Your task to perform on an android device: Open the calendar and show me this week's events? Image 0: 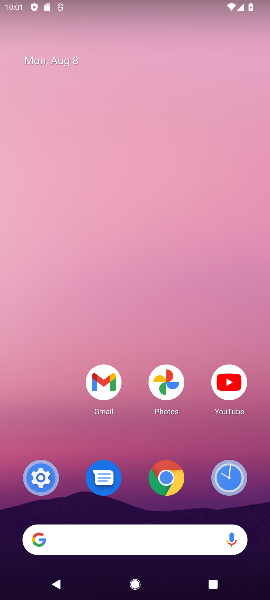
Step 0: drag from (170, 512) to (104, 39)
Your task to perform on an android device: Open the calendar and show me this week's events? Image 1: 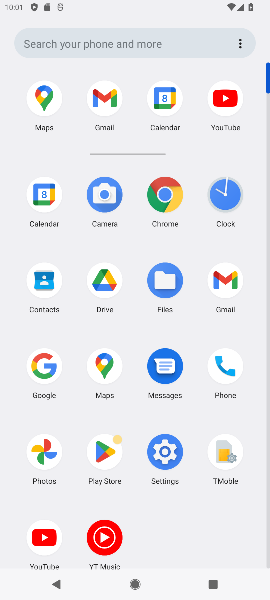
Step 1: click (24, 199)
Your task to perform on an android device: Open the calendar and show me this week's events? Image 2: 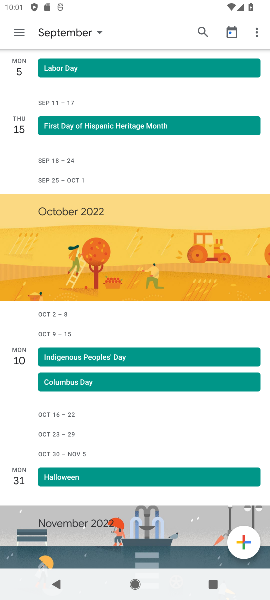
Step 2: click (11, 32)
Your task to perform on an android device: Open the calendar and show me this week's events? Image 3: 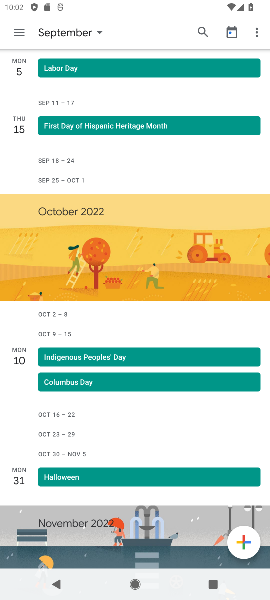
Step 3: click (11, 32)
Your task to perform on an android device: Open the calendar and show me this week's events? Image 4: 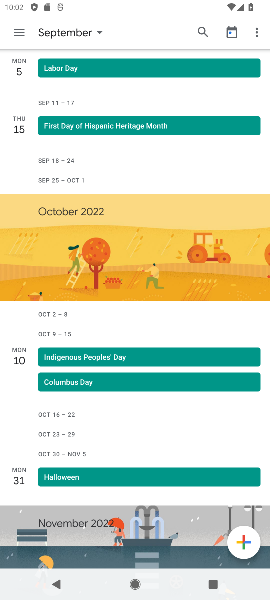
Step 4: click (11, 32)
Your task to perform on an android device: Open the calendar and show me this week's events? Image 5: 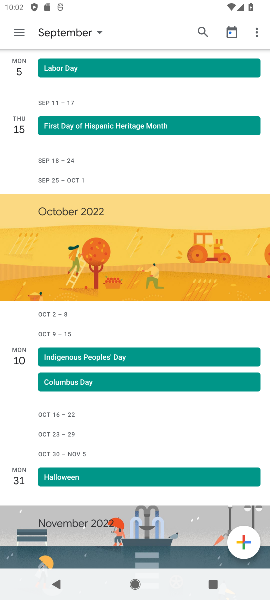
Step 5: click (11, 29)
Your task to perform on an android device: Open the calendar and show me this week's events? Image 6: 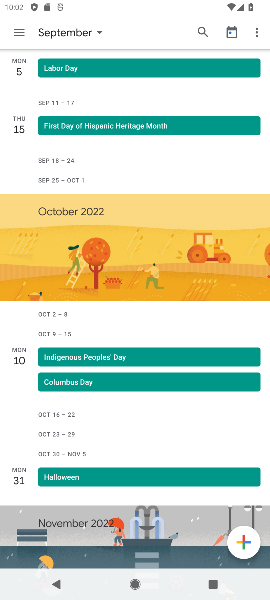
Step 6: click (27, 26)
Your task to perform on an android device: Open the calendar and show me this week's events? Image 7: 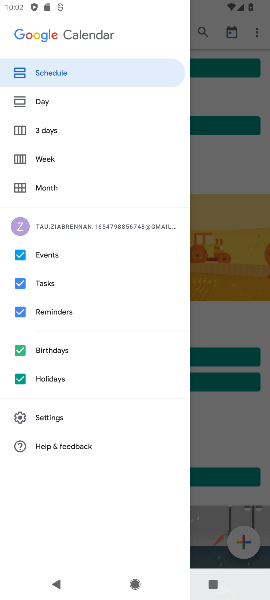
Step 7: click (42, 161)
Your task to perform on an android device: Open the calendar and show me this week's events? Image 8: 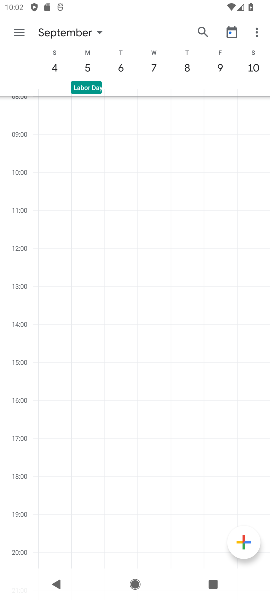
Step 8: click (224, 27)
Your task to perform on an android device: Open the calendar and show me this week's events? Image 9: 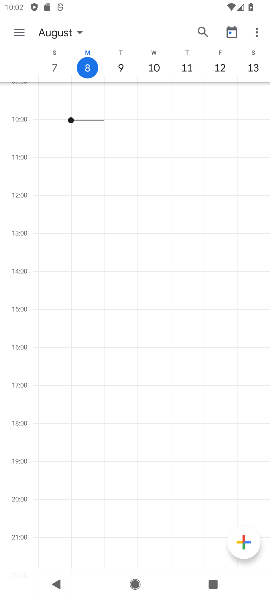
Step 9: task complete